Your task to perform on an android device: make emails show in primary in the gmail app Image 0: 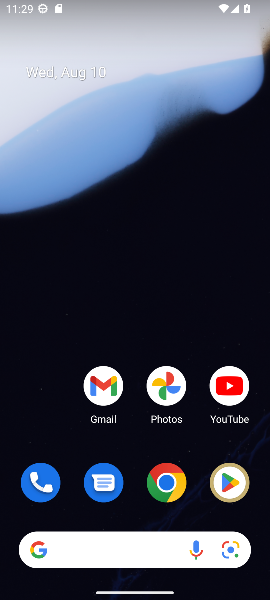
Step 0: drag from (40, 413) to (0, 165)
Your task to perform on an android device: make emails show in primary in the gmail app Image 1: 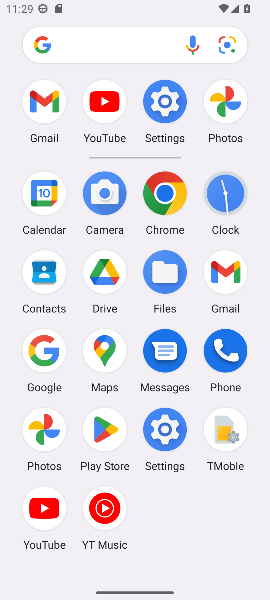
Step 1: click (51, 113)
Your task to perform on an android device: make emails show in primary in the gmail app Image 2: 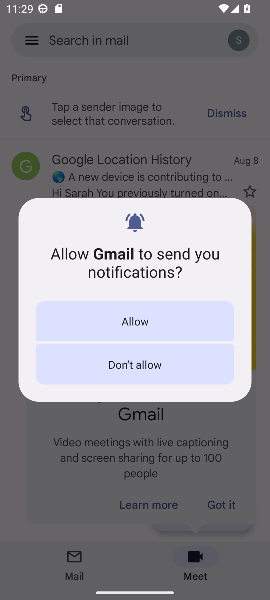
Step 2: click (142, 320)
Your task to perform on an android device: make emails show in primary in the gmail app Image 3: 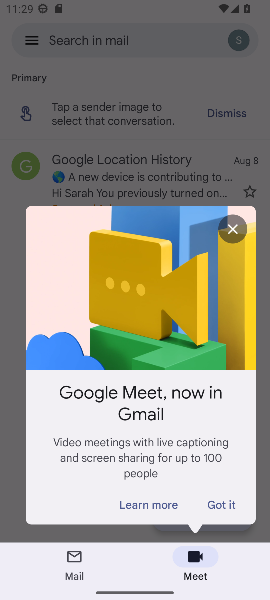
Step 3: click (232, 230)
Your task to perform on an android device: make emails show in primary in the gmail app Image 4: 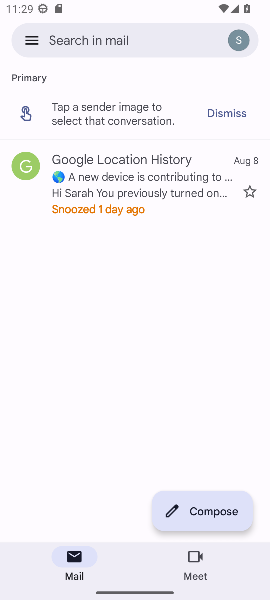
Step 4: task complete